Your task to perform on an android device: Clear the cart on newegg.com. Search for macbook on newegg.com, select the first entry, add it to the cart, then select checkout. Image 0: 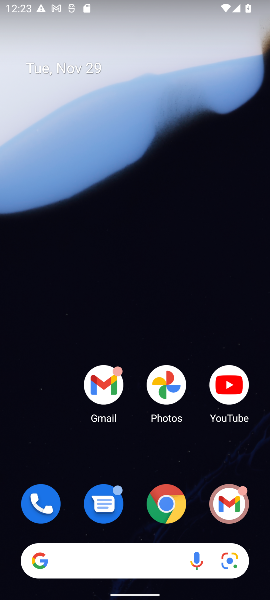
Step 0: click (168, 511)
Your task to perform on an android device: Clear the cart on newegg.com. Search for macbook on newegg.com, select the first entry, add it to the cart, then select checkout. Image 1: 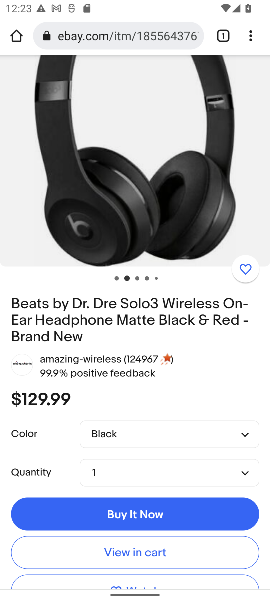
Step 1: click (112, 35)
Your task to perform on an android device: Clear the cart on newegg.com. Search for macbook on newegg.com, select the first entry, add it to the cart, then select checkout. Image 2: 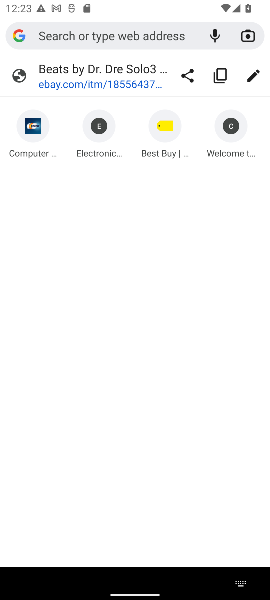
Step 2: click (24, 152)
Your task to perform on an android device: Clear the cart on newegg.com. Search for macbook on newegg.com, select the first entry, add it to the cart, then select checkout. Image 3: 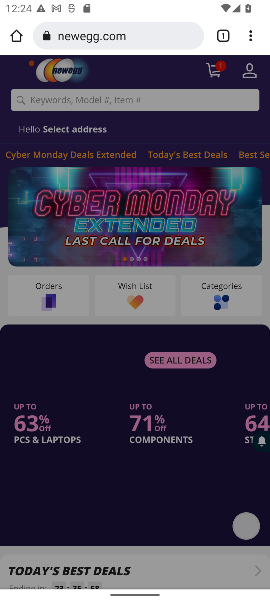
Step 3: click (208, 68)
Your task to perform on an android device: Clear the cart on newegg.com. Search for macbook on newegg.com, select the first entry, add it to the cart, then select checkout. Image 4: 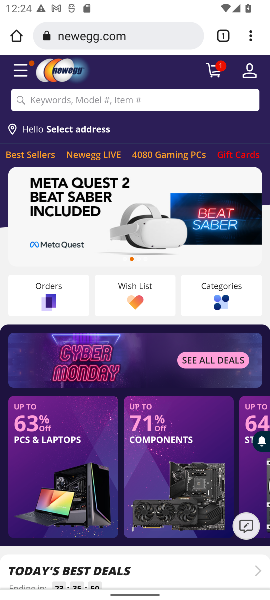
Step 4: click (215, 68)
Your task to perform on an android device: Clear the cart on newegg.com. Search for macbook on newegg.com, select the first entry, add it to the cart, then select checkout. Image 5: 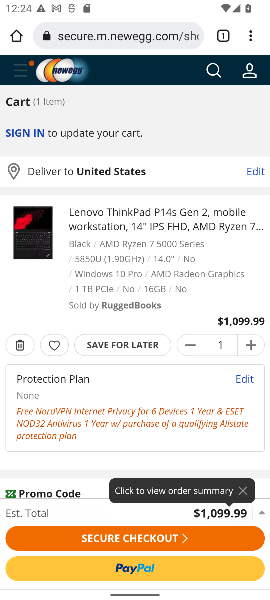
Step 5: click (24, 347)
Your task to perform on an android device: Clear the cart on newegg.com. Search for macbook on newegg.com, select the first entry, add it to the cart, then select checkout. Image 6: 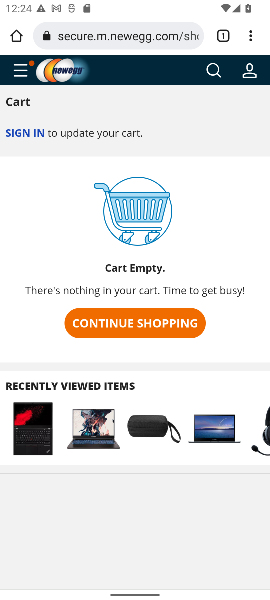
Step 6: click (174, 425)
Your task to perform on an android device: Clear the cart on newegg.com. Search for macbook on newegg.com, select the first entry, add it to the cart, then select checkout. Image 7: 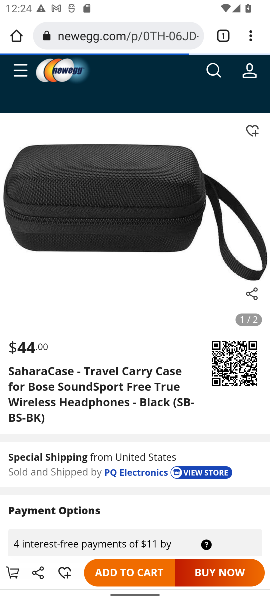
Step 7: click (213, 69)
Your task to perform on an android device: Clear the cart on newegg.com. Search for macbook on newegg.com, select the first entry, add it to the cart, then select checkout. Image 8: 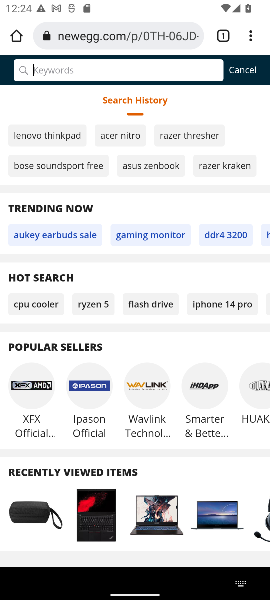
Step 8: type "macbook"
Your task to perform on an android device: Clear the cart on newegg.com. Search for macbook on newegg.com, select the first entry, add it to the cart, then select checkout. Image 9: 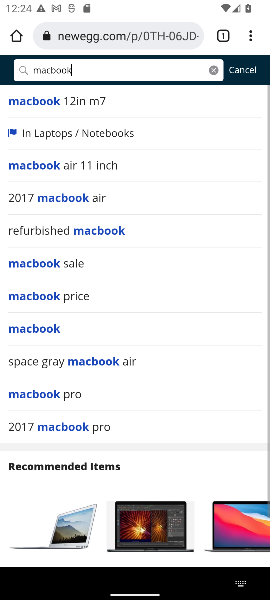
Step 9: click (35, 331)
Your task to perform on an android device: Clear the cart on newegg.com. Search for macbook on newegg.com, select the first entry, add it to the cart, then select checkout. Image 10: 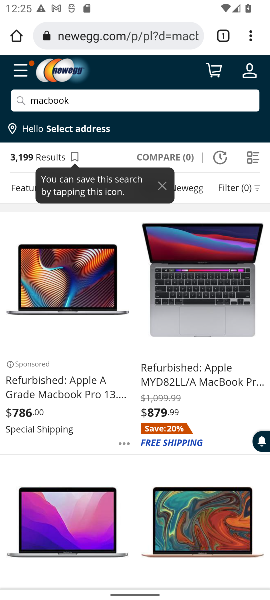
Step 10: click (58, 307)
Your task to perform on an android device: Clear the cart on newegg.com. Search for macbook on newegg.com, select the first entry, add it to the cart, then select checkout. Image 11: 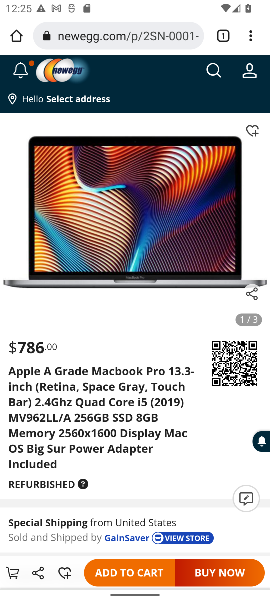
Step 11: drag from (108, 456) to (108, 376)
Your task to perform on an android device: Clear the cart on newegg.com. Search for macbook on newegg.com, select the first entry, add it to the cart, then select checkout. Image 12: 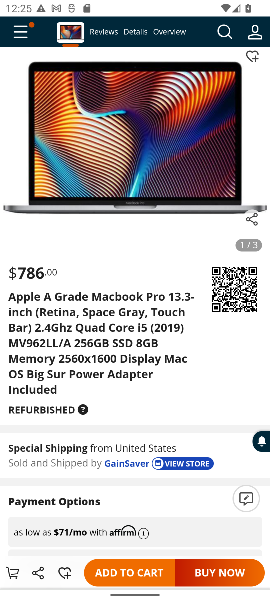
Step 12: click (119, 569)
Your task to perform on an android device: Clear the cart on newegg.com. Search for macbook on newegg.com, select the first entry, add it to the cart, then select checkout. Image 13: 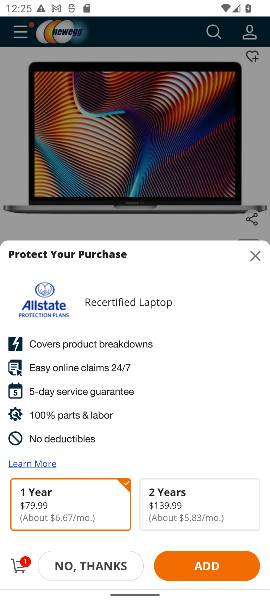
Step 13: click (20, 566)
Your task to perform on an android device: Clear the cart on newegg.com. Search for macbook on newegg.com, select the first entry, add it to the cart, then select checkout. Image 14: 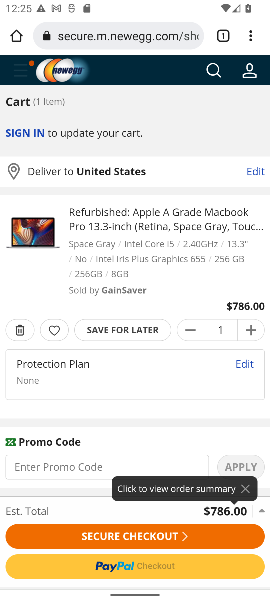
Step 14: click (89, 537)
Your task to perform on an android device: Clear the cart on newegg.com. Search for macbook on newegg.com, select the first entry, add it to the cart, then select checkout. Image 15: 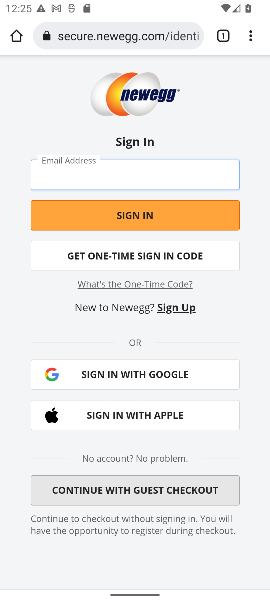
Step 15: task complete